Your task to perform on an android device: Turn off the flashlight Image 0: 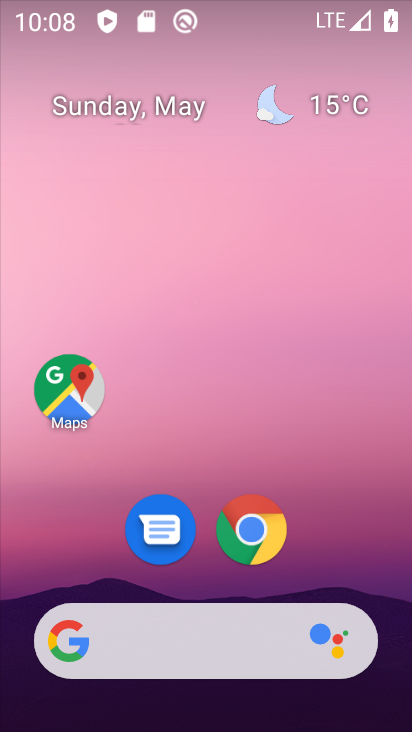
Step 0: drag from (214, 630) to (385, 62)
Your task to perform on an android device: Turn off the flashlight Image 1: 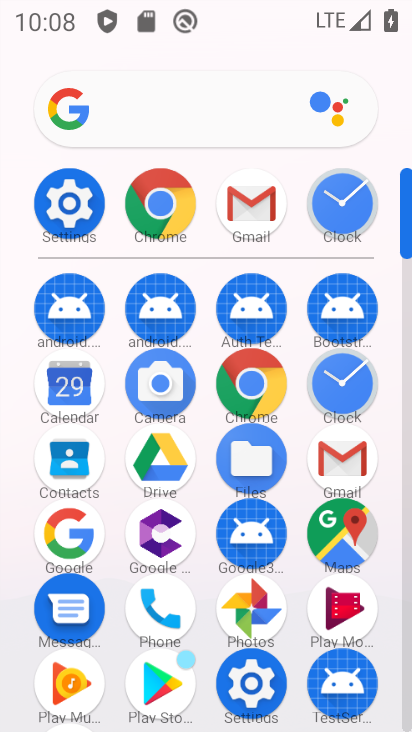
Step 1: click (57, 210)
Your task to perform on an android device: Turn off the flashlight Image 2: 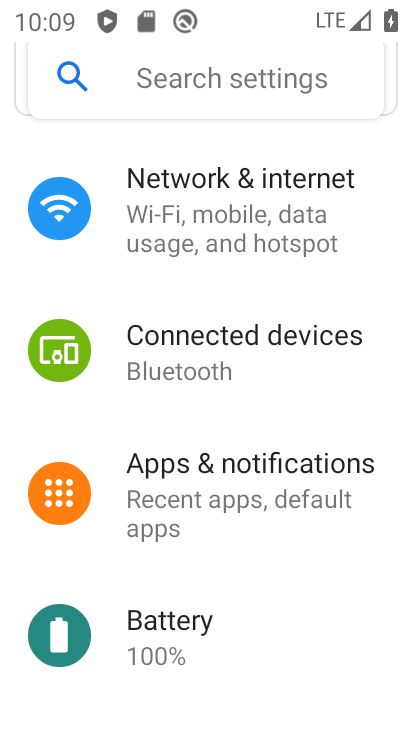
Step 2: task complete